Your task to perform on an android device: Toggle the flashlight Image 0: 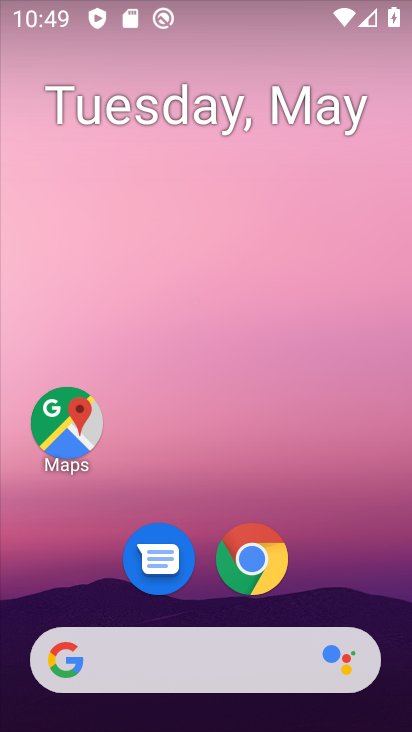
Step 0: drag from (235, 8) to (245, 460)
Your task to perform on an android device: Toggle the flashlight Image 1: 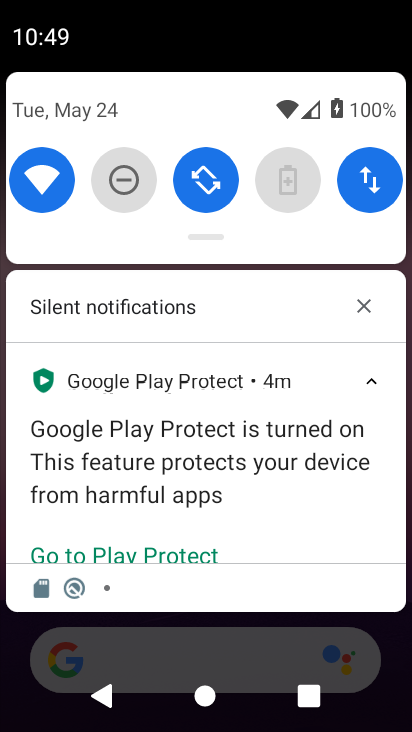
Step 1: drag from (253, 203) to (254, 487)
Your task to perform on an android device: Toggle the flashlight Image 2: 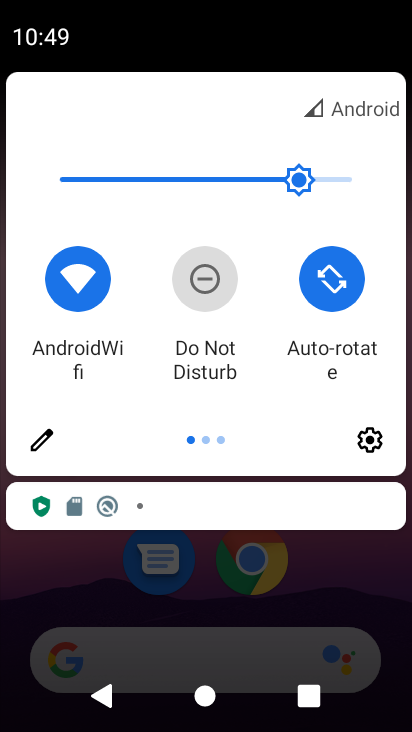
Step 2: drag from (384, 380) to (51, 353)
Your task to perform on an android device: Toggle the flashlight Image 3: 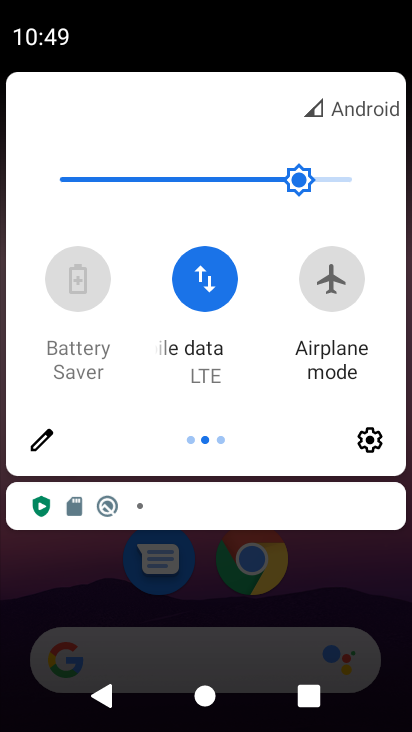
Step 3: click (39, 453)
Your task to perform on an android device: Toggle the flashlight Image 4: 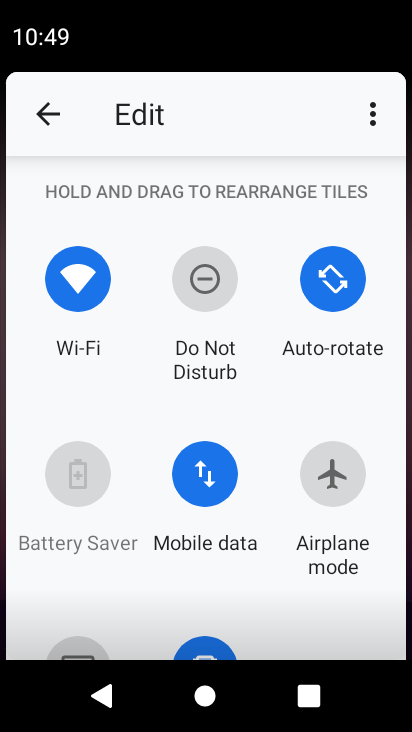
Step 4: task complete